Your task to perform on an android device: turn on wifi Image 0: 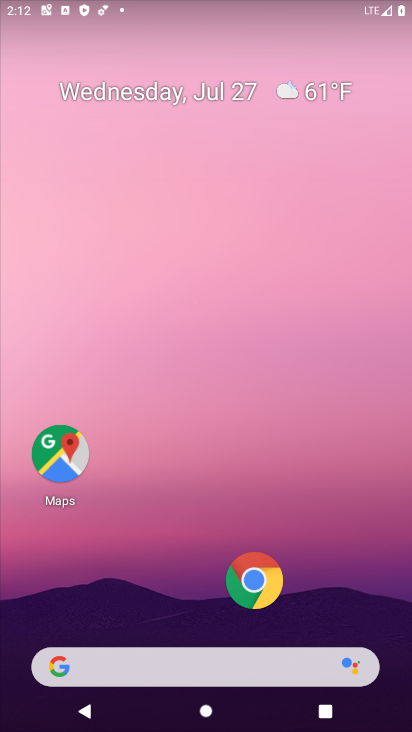
Step 0: drag from (196, 602) to (221, 44)
Your task to perform on an android device: turn on wifi Image 1: 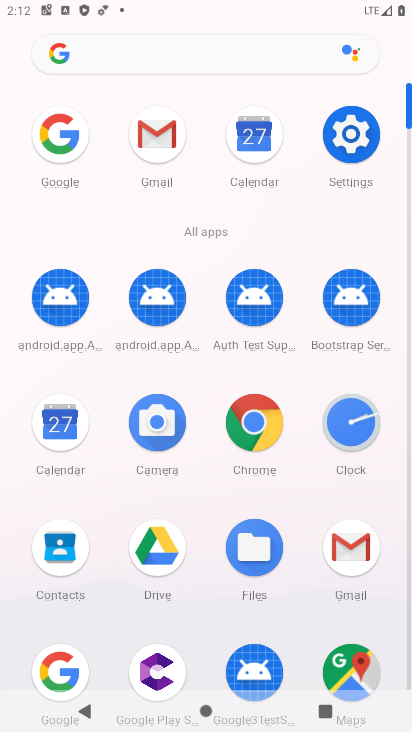
Step 1: click (353, 133)
Your task to perform on an android device: turn on wifi Image 2: 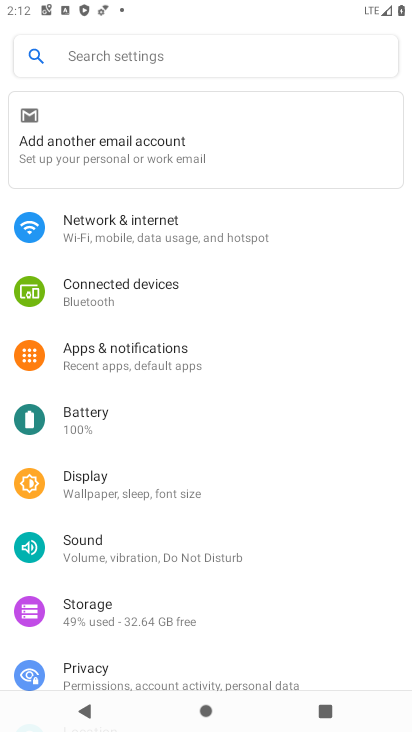
Step 2: click (135, 233)
Your task to perform on an android device: turn on wifi Image 3: 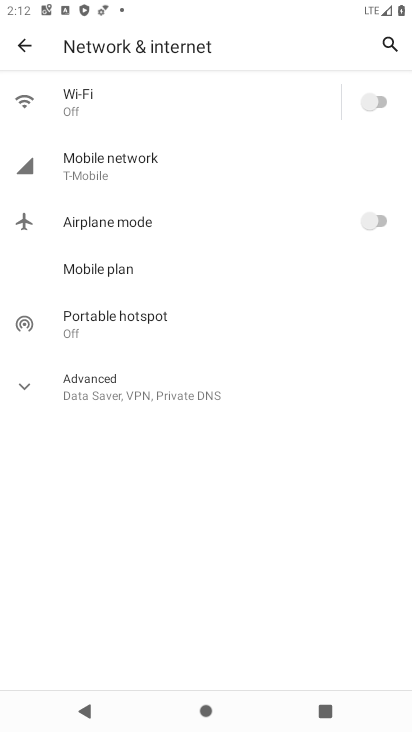
Step 3: click (373, 105)
Your task to perform on an android device: turn on wifi Image 4: 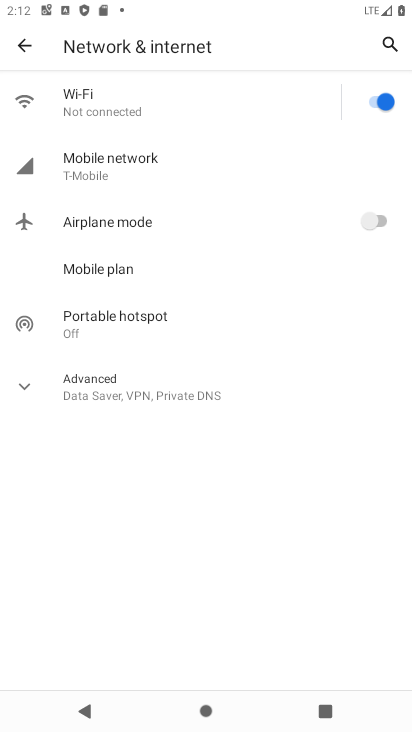
Step 4: task complete